Your task to perform on an android device: toggle notification dots Image 0: 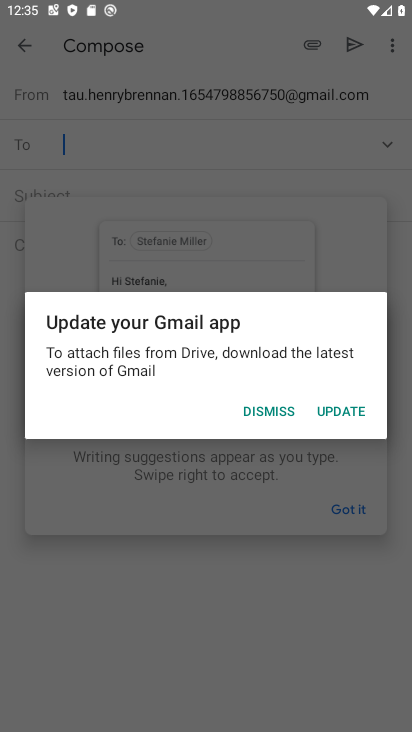
Step 0: press home button
Your task to perform on an android device: toggle notification dots Image 1: 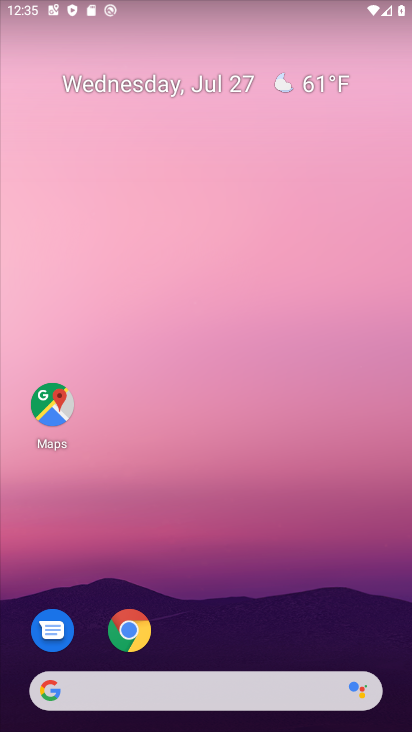
Step 1: drag from (230, 676) to (201, 235)
Your task to perform on an android device: toggle notification dots Image 2: 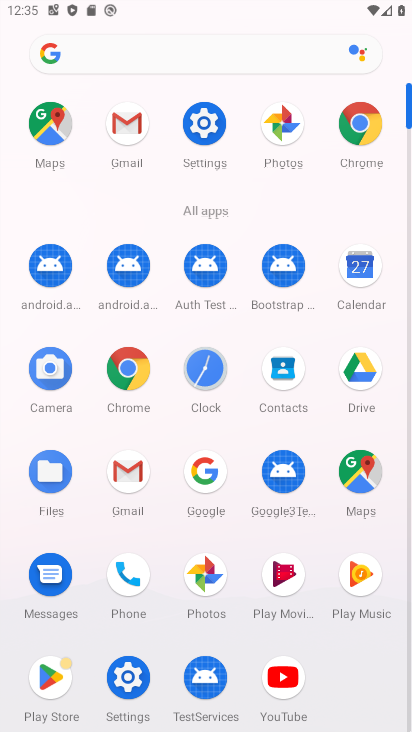
Step 2: click (201, 115)
Your task to perform on an android device: toggle notification dots Image 3: 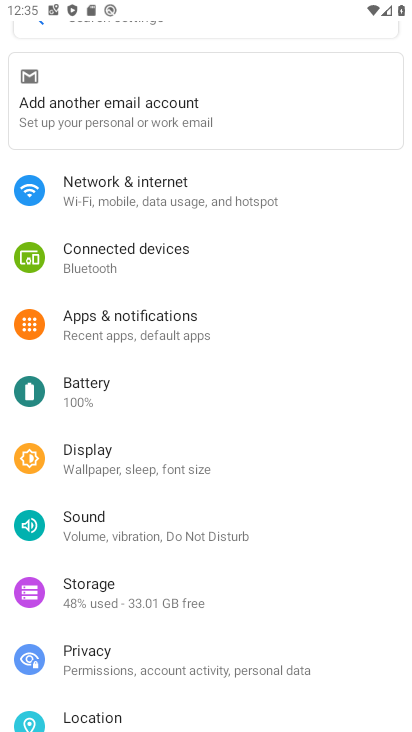
Step 3: click (132, 330)
Your task to perform on an android device: toggle notification dots Image 4: 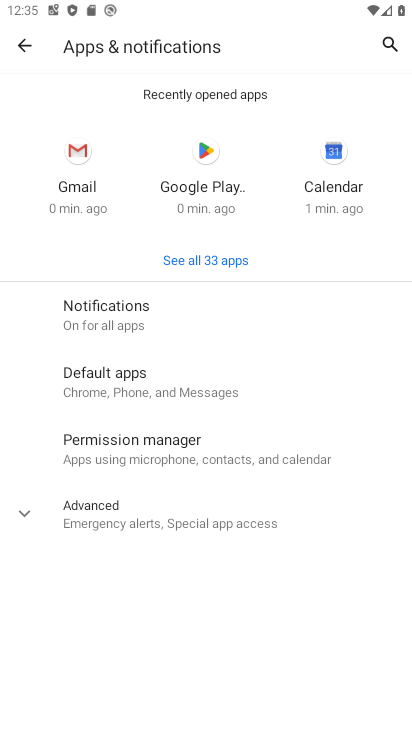
Step 4: click (87, 317)
Your task to perform on an android device: toggle notification dots Image 5: 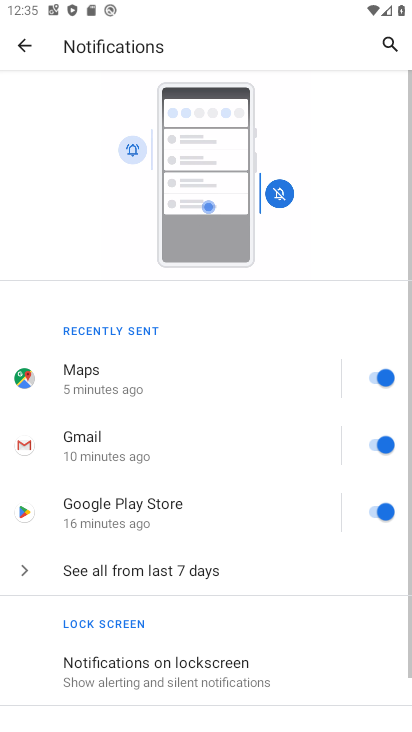
Step 5: drag from (143, 652) to (123, 255)
Your task to perform on an android device: toggle notification dots Image 6: 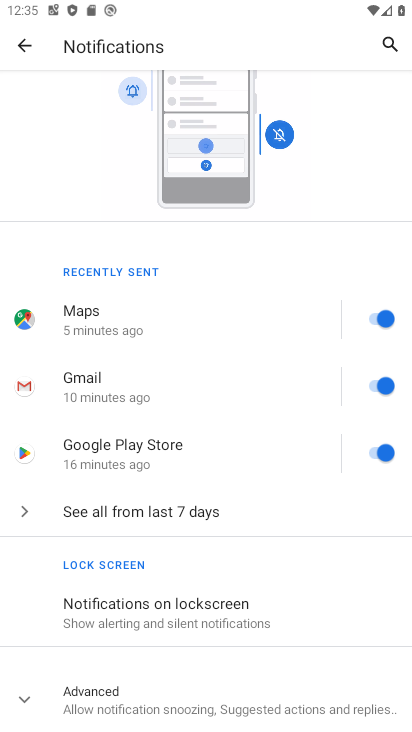
Step 6: click (101, 704)
Your task to perform on an android device: toggle notification dots Image 7: 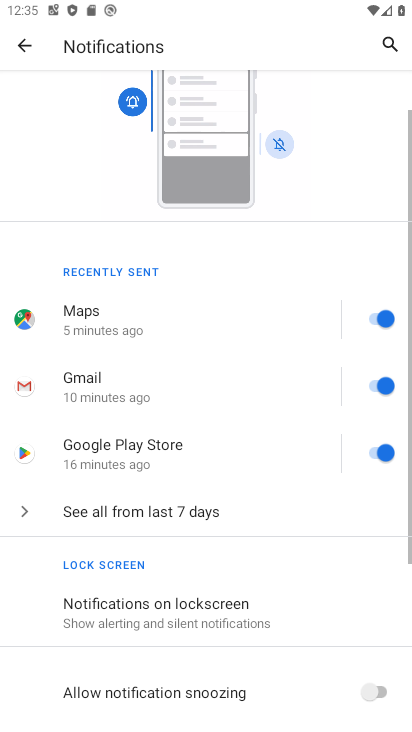
Step 7: drag from (246, 640) to (255, 287)
Your task to perform on an android device: toggle notification dots Image 8: 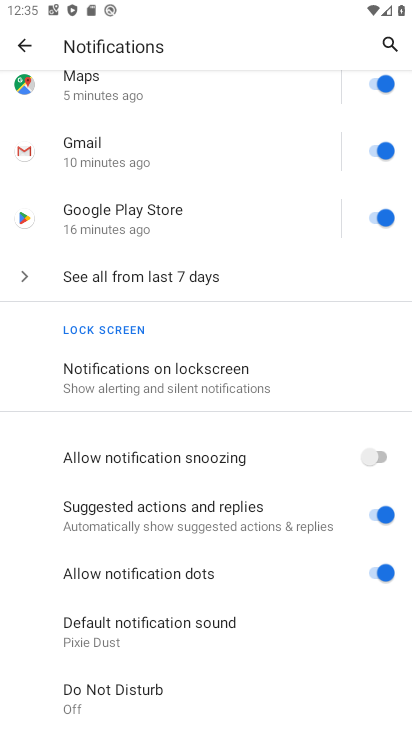
Step 8: click (373, 575)
Your task to perform on an android device: toggle notification dots Image 9: 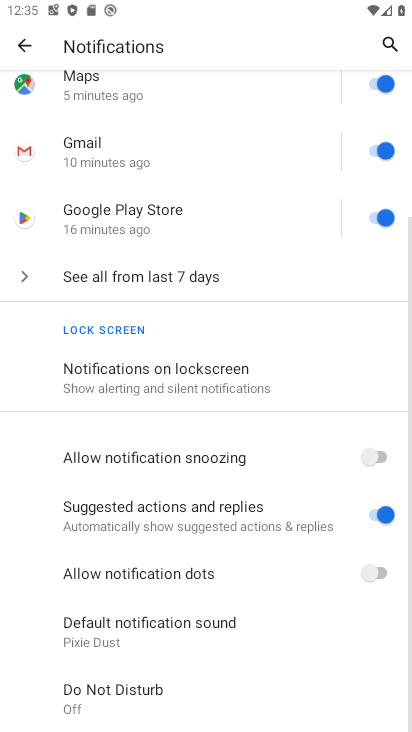
Step 9: task complete